Your task to perform on an android device: Open Chrome and go to settings Image 0: 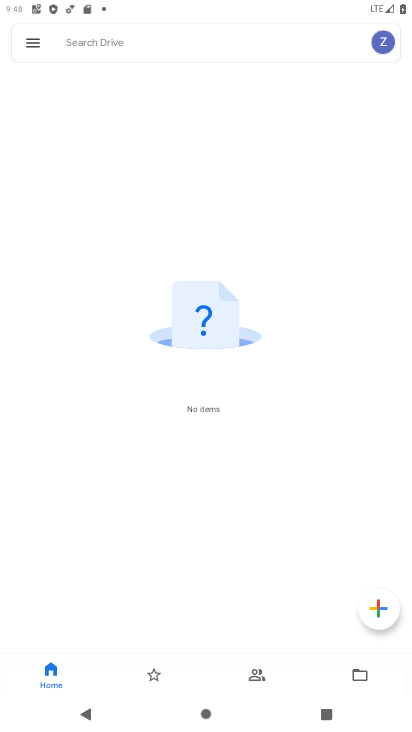
Step 0: press home button
Your task to perform on an android device: Open Chrome and go to settings Image 1: 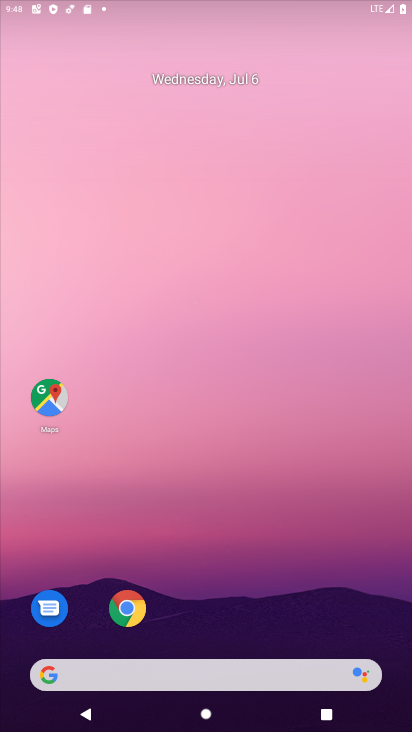
Step 1: press home button
Your task to perform on an android device: Open Chrome and go to settings Image 2: 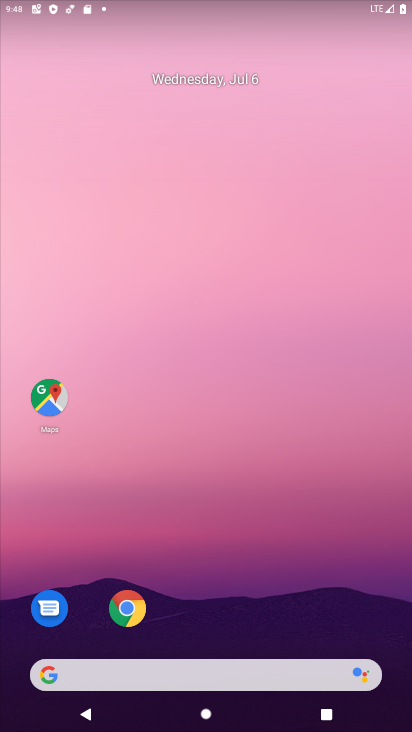
Step 2: click (131, 600)
Your task to perform on an android device: Open Chrome and go to settings Image 3: 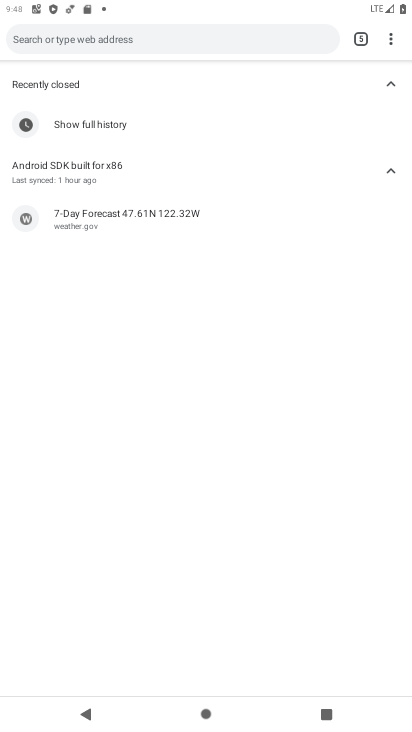
Step 3: click (387, 30)
Your task to perform on an android device: Open Chrome and go to settings Image 4: 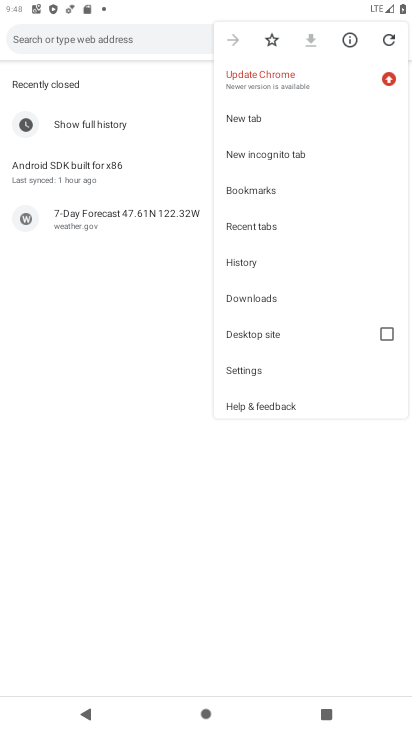
Step 4: click (248, 365)
Your task to perform on an android device: Open Chrome and go to settings Image 5: 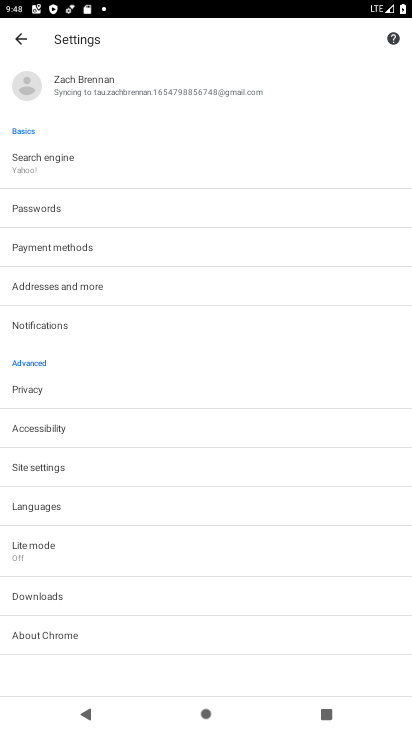
Step 5: task complete